Your task to perform on an android device: Open my contact list Image 0: 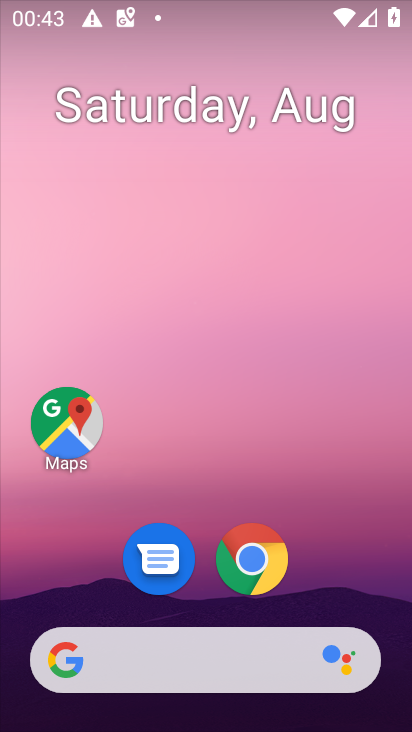
Step 0: drag from (372, 601) to (244, 11)
Your task to perform on an android device: Open my contact list Image 1: 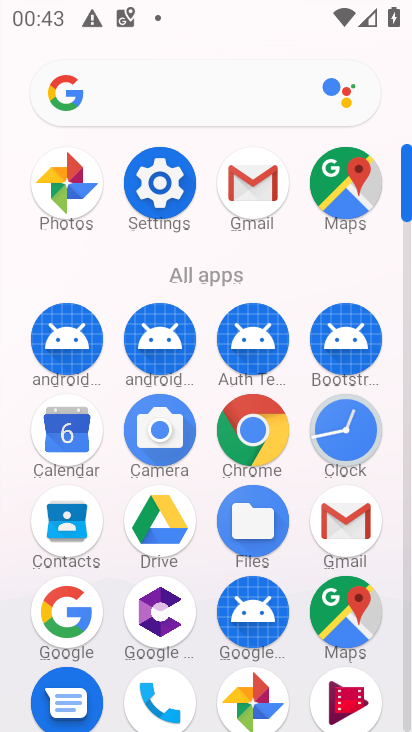
Step 1: click (75, 506)
Your task to perform on an android device: Open my contact list Image 2: 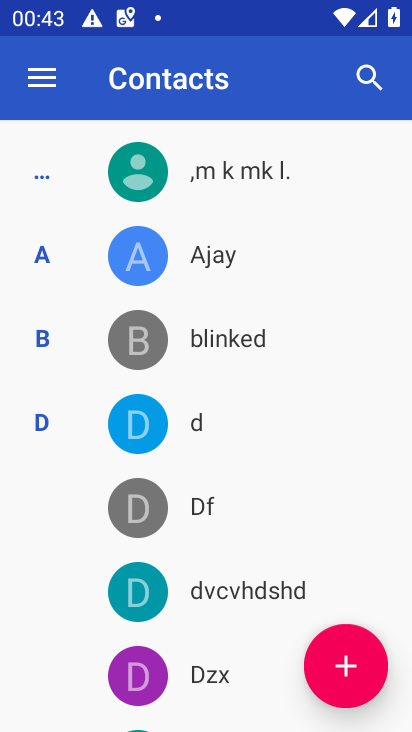
Step 2: task complete